Your task to perform on an android device: See recent photos Image 0: 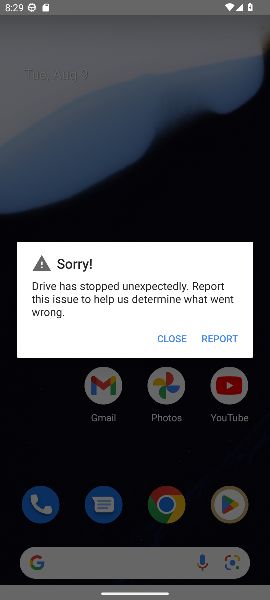
Step 0: press home button
Your task to perform on an android device: See recent photos Image 1: 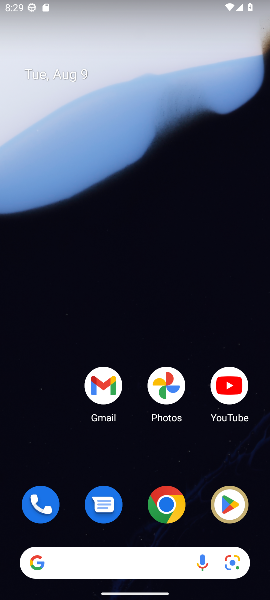
Step 1: click (165, 389)
Your task to perform on an android device: See recent photos Image 2: 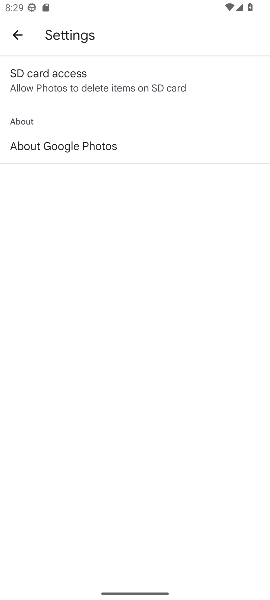
Step 2: click (16, 29)
Your task to perform on an android device: See recent photos Image 3: 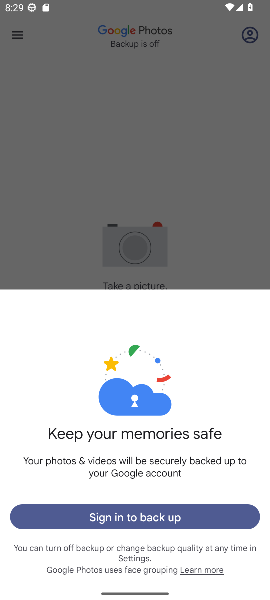
Step 3: click (131, 516)
Your task to perform on an android device: See recent photos Image 4: 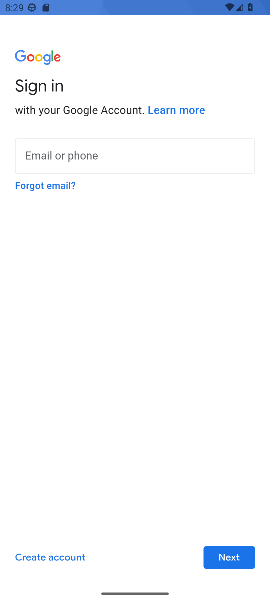
Step 4: task complete